Your task to perform on an android device: Go to Yahoo.com Image 0: 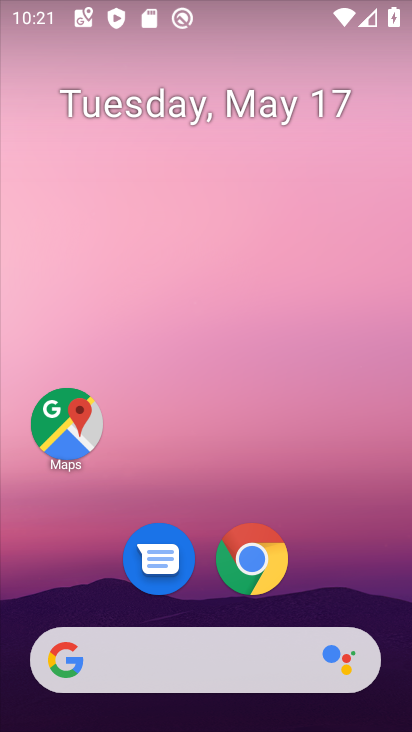
Step 0: click (179, 676)
Your task to perform on an android device: Go to Yahoo.com Image 1: 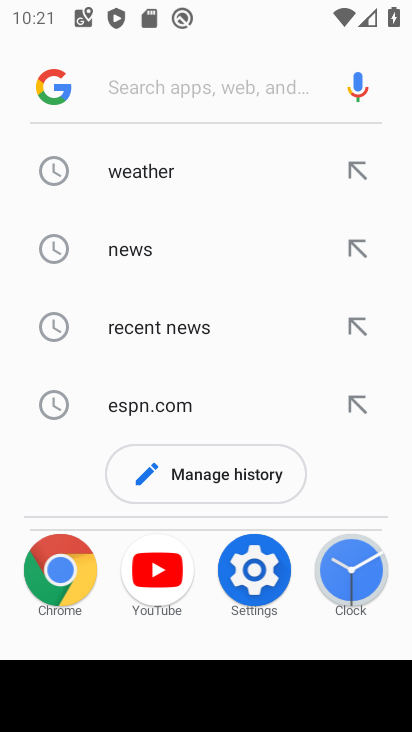
Step 1: type ""
Your task to perform on an android device: Go to Yahoo.com Image 2: 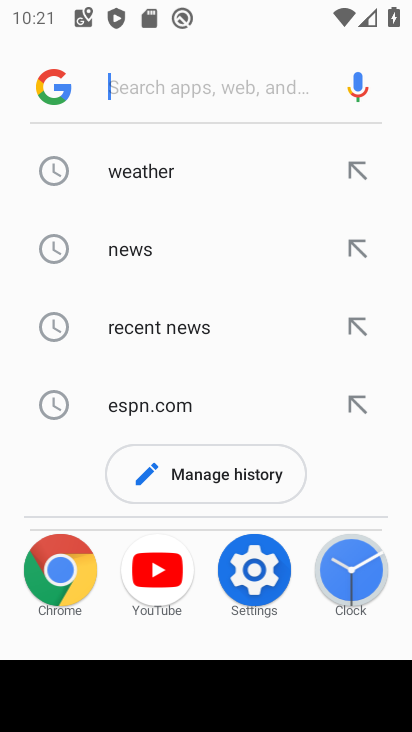
Step 2: type "yahoo.com"
Your task to perform on an android device: Go to Yahoo.com Image 3: 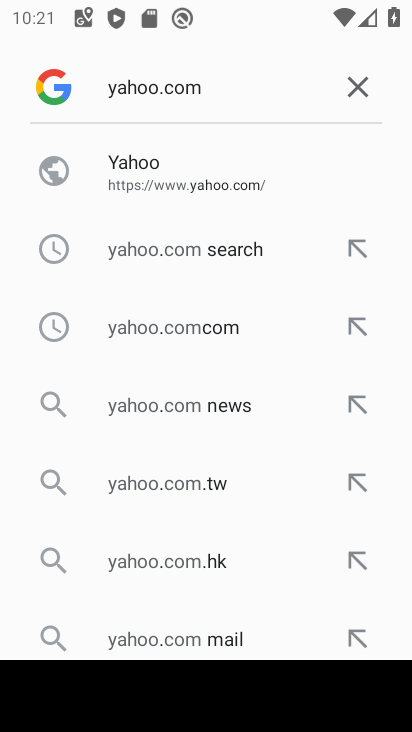
Step 3: click (168, 171)
Your task to perform on an android device: Go to Yahoo.com Image 4: 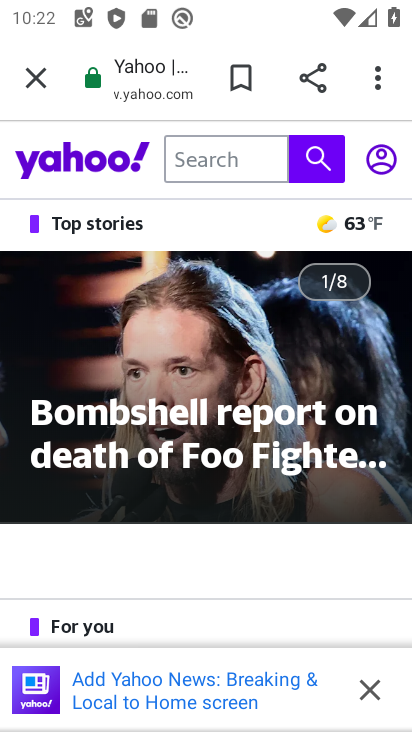
Step 4: task complete